Your task to perform on an android device: Open settings on Google Maps Image 0: 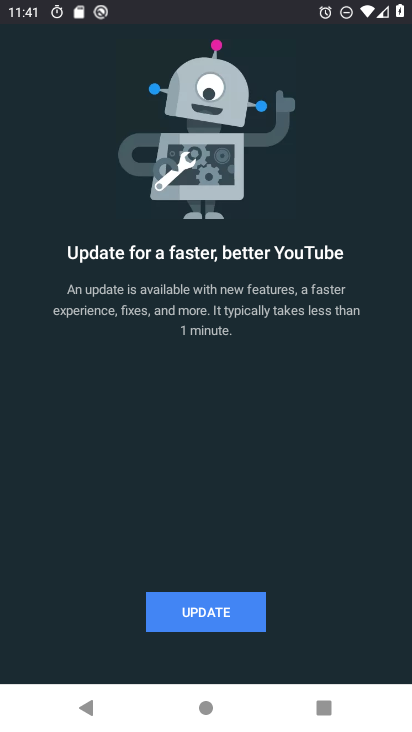
Step 0: press back button
Your task to perform on an android device: Open settings on Google Maps Image 1: 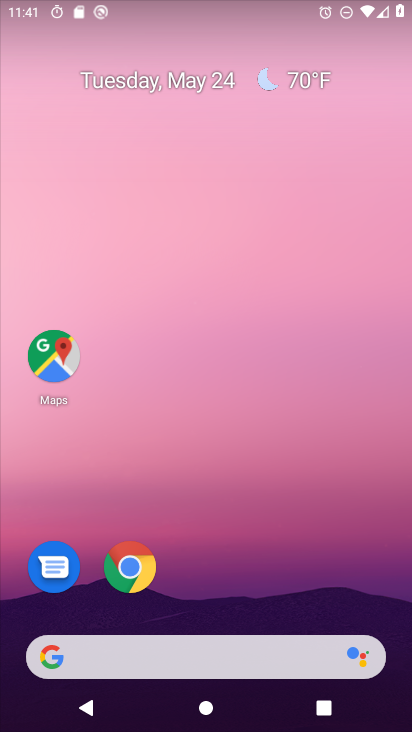
Step 1: click (55, 360)
Your task to perform on an android device: Open settings on Google Maps Image 2: 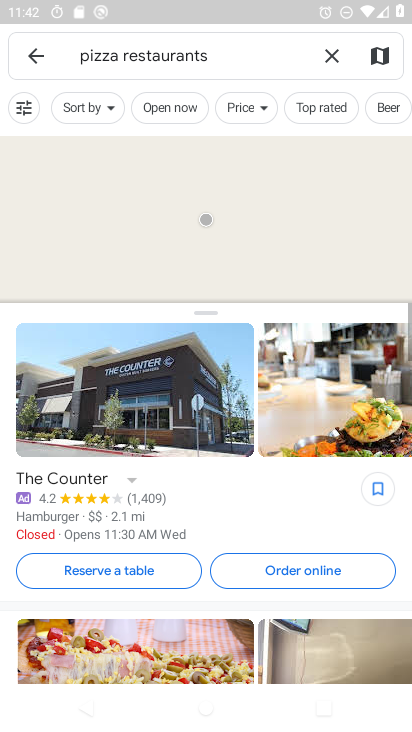
Step 2: task complete